Your task to perform on an android device: toggle notifications settings in the gmail app Image 0: 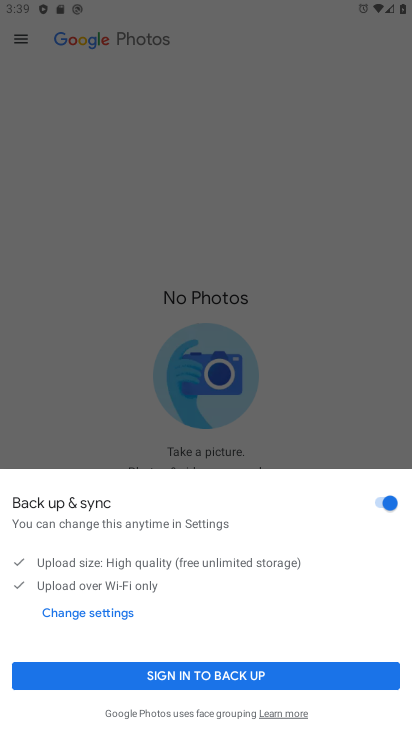
Step 0: click (189, 675)
Your task to perform on an android device: toggle notifications settings in the gmail app Image 1: 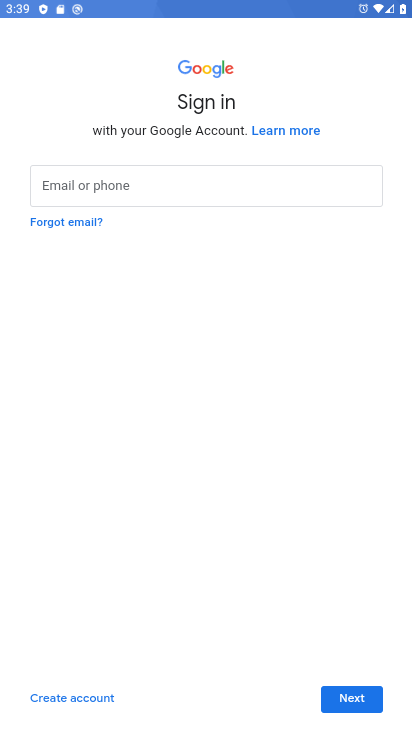
Step 1: press back button
Your task to perform on an android device: toggle notifications settings in the gmail app Image 2: 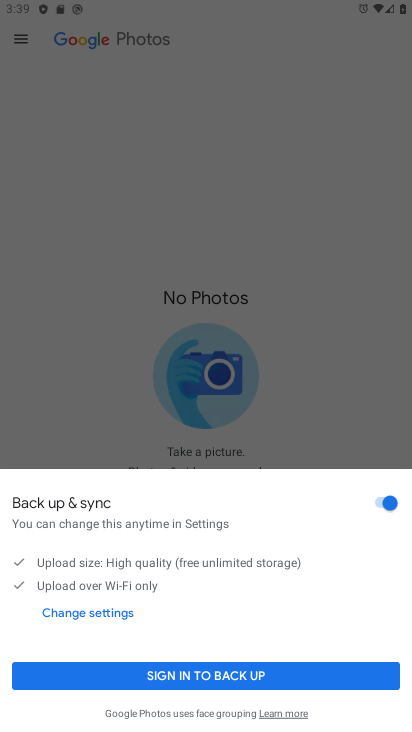
Step 2: click (342, 434)
Your task to perform on an android device: toggle notifications settings in the gmail app Image 3: 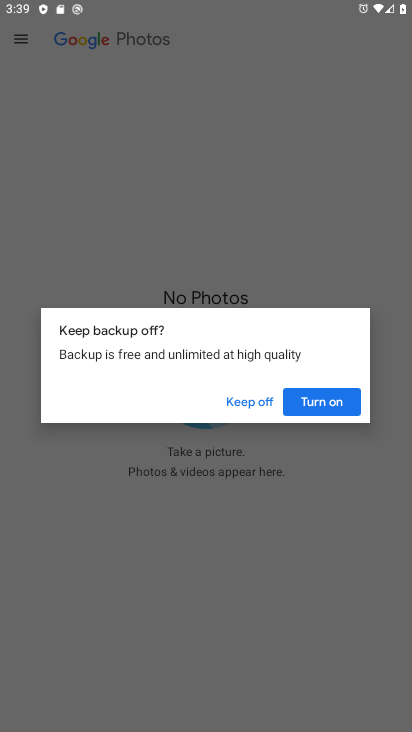
Step 3: click (328, 400)
Your task to perform on an android device: toggle notifications settings in the gmail app Image 4: 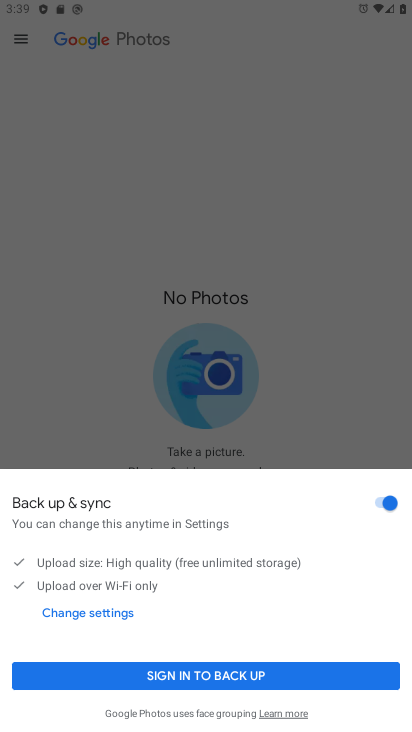
Step 4: click (304, 411)
Your task to perform on an android device: toggle notifications settings in the gmail app Image 5: 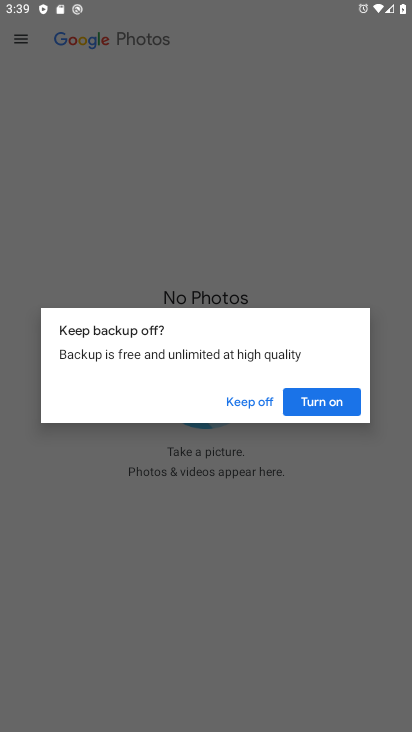
Step 5: click (253, 408)
Your task to perform on an android device: toggle notifications settings in the gmail app Image 6: 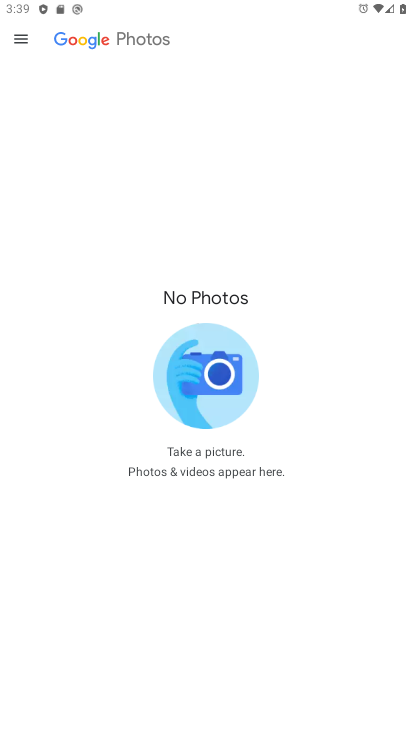
Step 6: click (16, 40)
Your task to perform on an android device: toggle notifications settings in the gmail app Image 7: 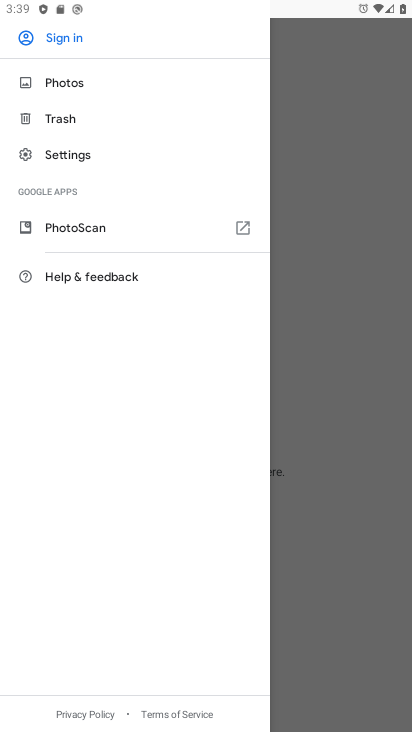
Step 7: click (87, 157)
Your task to perform on an android device: toggle notifications settings in the gmail app Image 8: 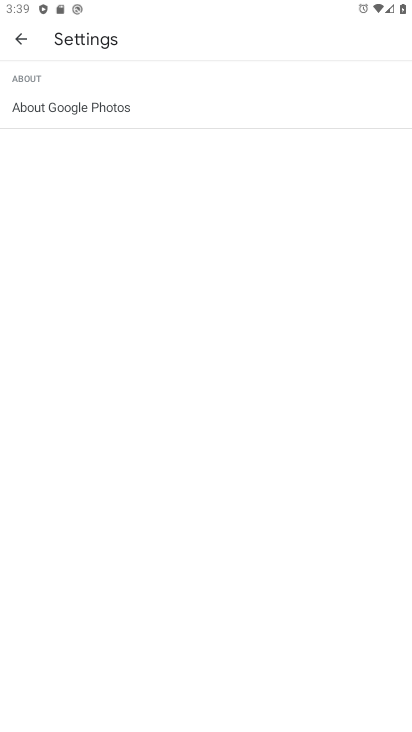
Step 8: task complete